Your task to perform on an android device: Search for vegetarian restaurants on Maps Image 0: 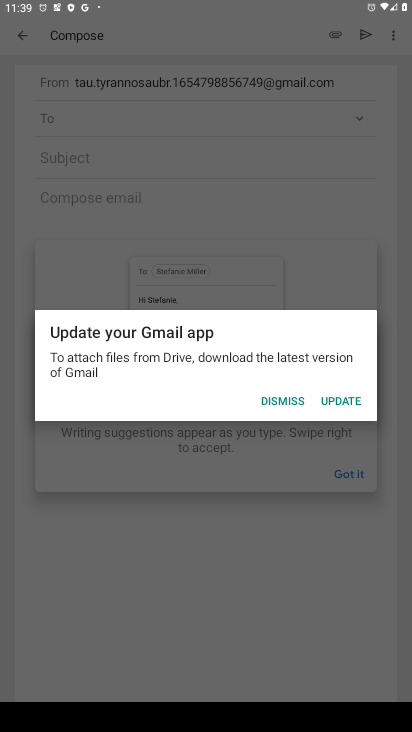
Step 0: press home button
Your task to perform on an android device: Search for vegetarian restaurants on Maps Image 1: 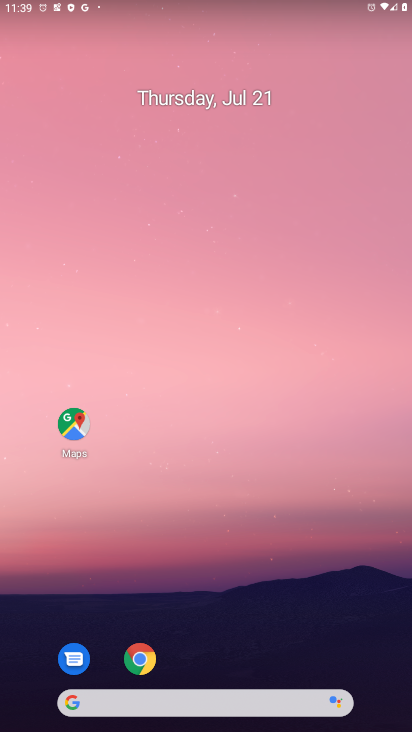
Step 1: click (76, 424)
Your task to perform on an android device: Search for vegetarian restaurants on Maps Image 2: 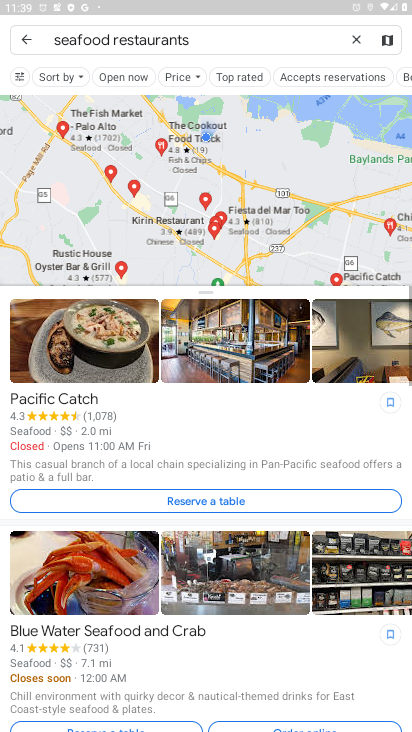
Step 2: click (360, 39)
Your task to perform on an android device: Search for vegetarian restaurants on Maps Image 3: 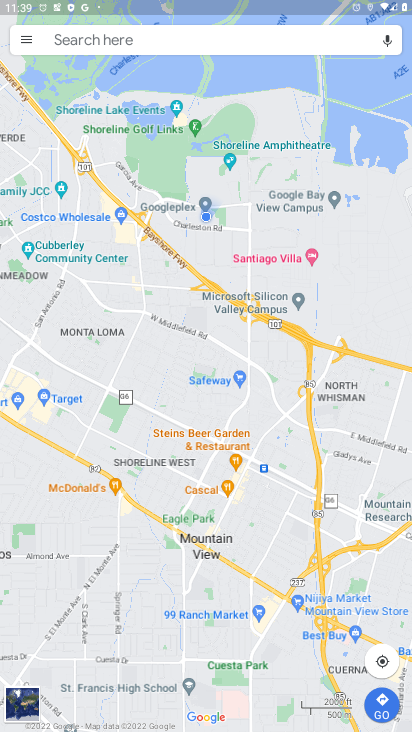
Step 3: click (246, 44)
Your task to perform on an android device: Search for vegetarian restaurants on Maps Image 4: 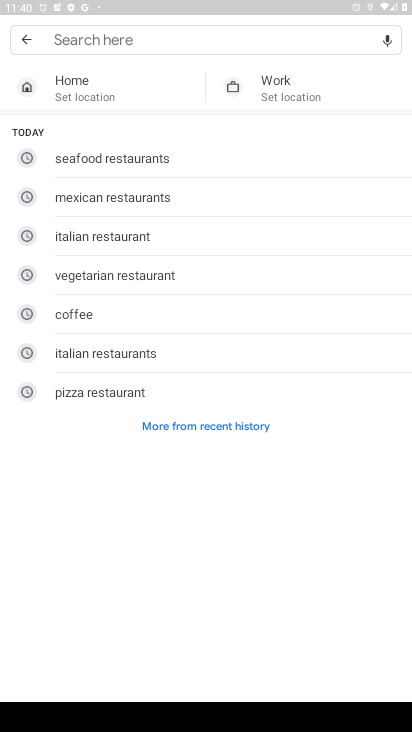
Step 4: type "vegetarian restaurants"
Your task to perform on an android device: Search for vegetarian restaurants on Maps Image 5: 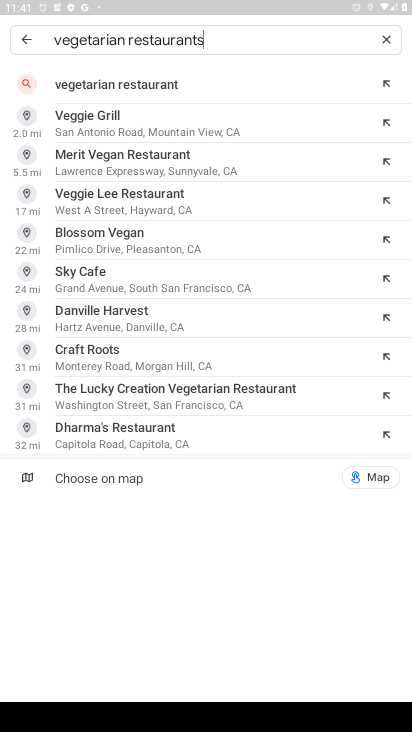
Step 5: click (154, 82)
Your task to perform on an android device: Search for vegetarian restaurants on Maps Image 6: 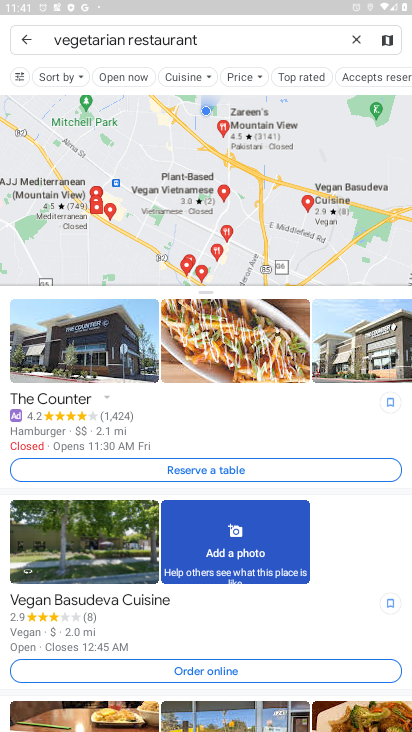
Step 6: task complete